Your task to perform on an android device: open wifi settings Image 0: 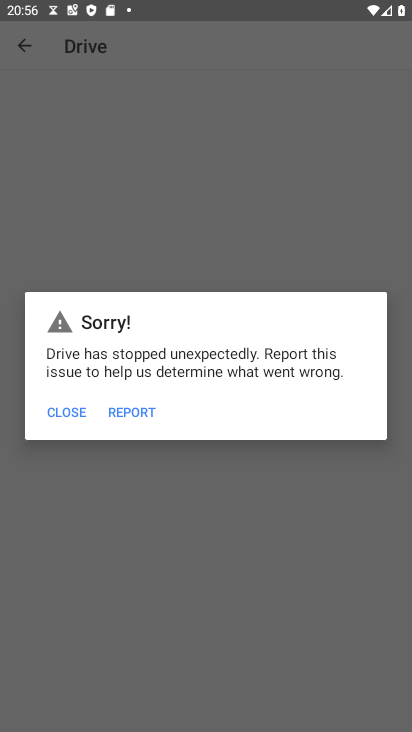
Step 0: press home button
Your task to perform on an android device: open wifi settings Image 1: 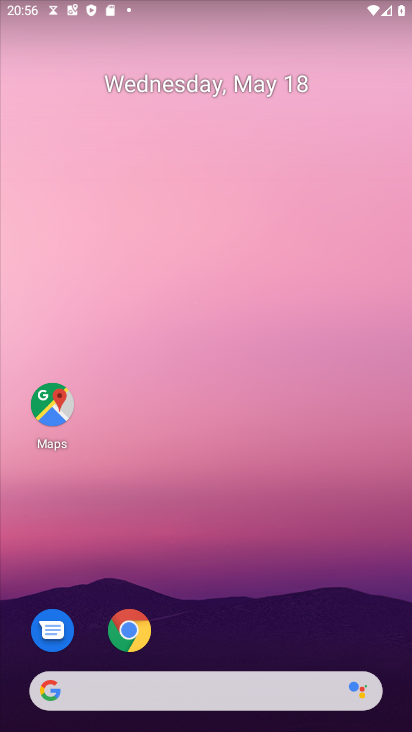
Step 1: drag from (149, 685) to (259, 86)
Your task to perform on an android device: open wifi settings Image 2: 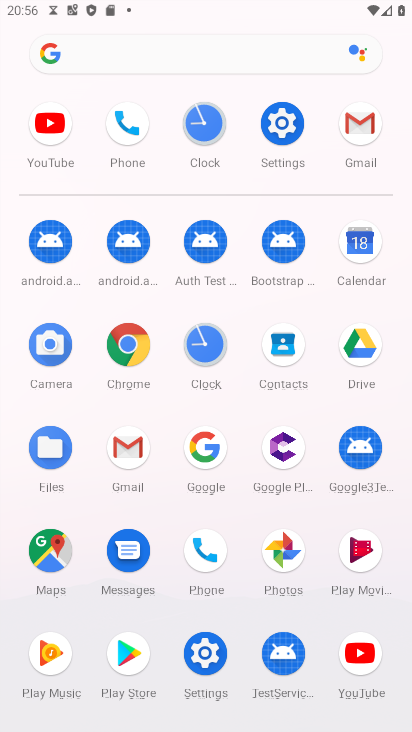
Step 2: click (282, 132)
Your task to perform on an android device: open wifi settings Image 3: 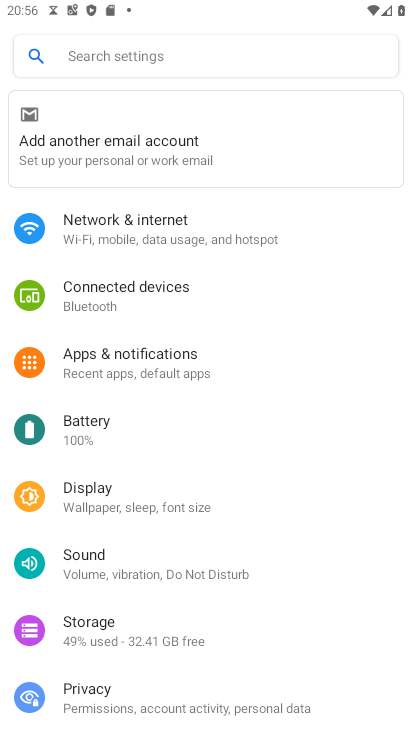
Step 3: click (165, 228)
Your task to perform on an android device: open wifi settings Image 4: 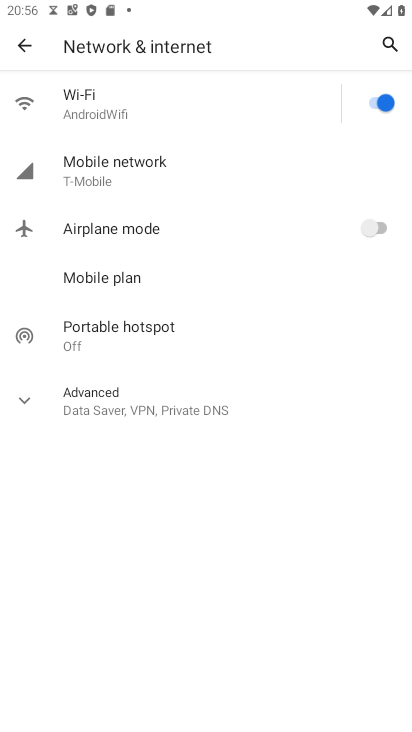
Step 4: click (105, 112)
Your task to perform on an android device: open wifi settings Image 5: 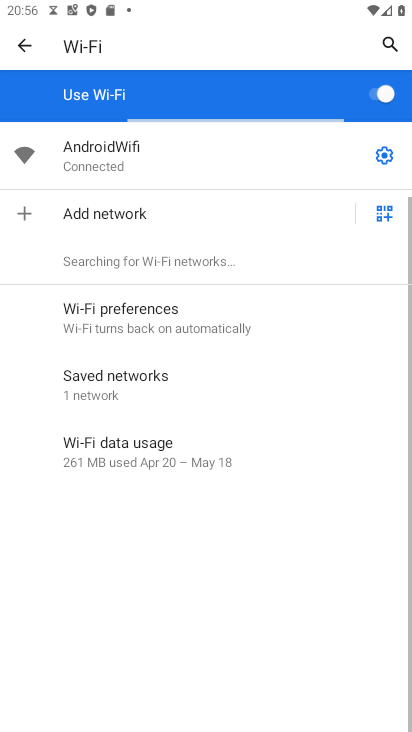
Step 5: task complete